Your task to perform on an android device: set default search engine in the chrome app Image 0: 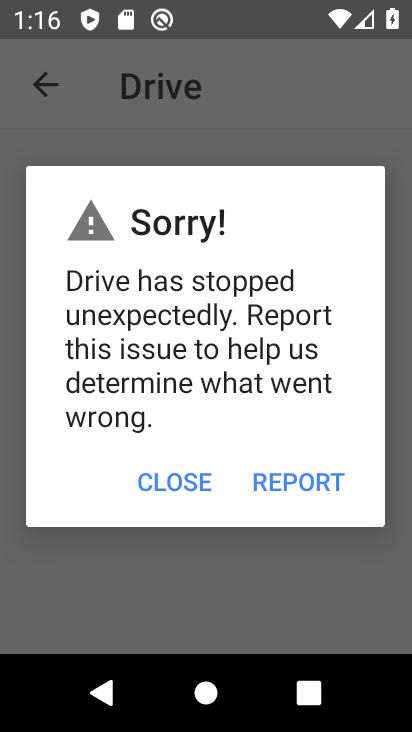
Step 0: press home button
Your task to perform on an android device: set default search engine in the chrome app Image 1: 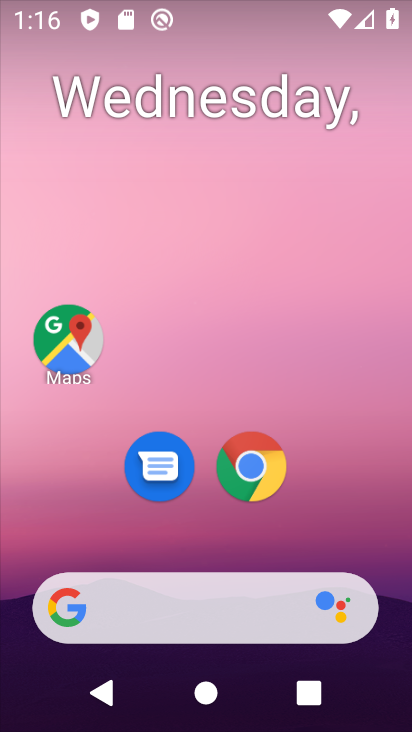
Step 1: click (266, 458)
Your task to perform on an android device: set default search engine in the chrome app Image 2: 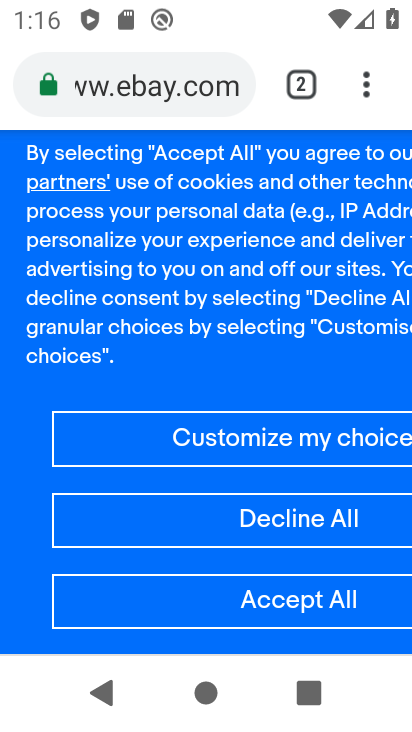
Step 2: click (372, 102)
Your task to perform on an android device: set default search engine in the chrome app Image 3: 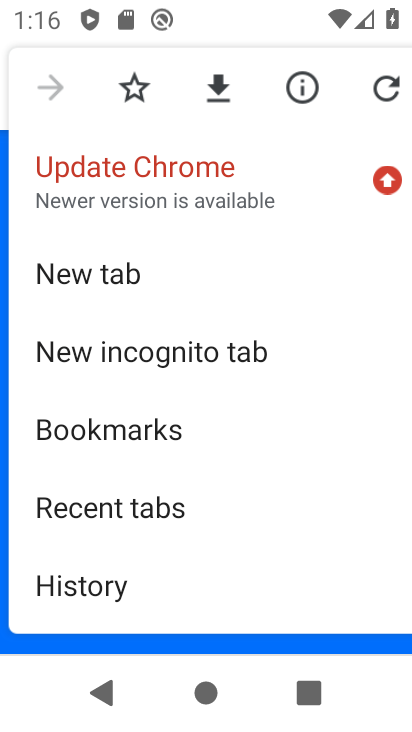
Step 3: drag from (140, 463) to (183, 105)
Your task to perform on an android device: set default search engine in the chrome app Image 4: 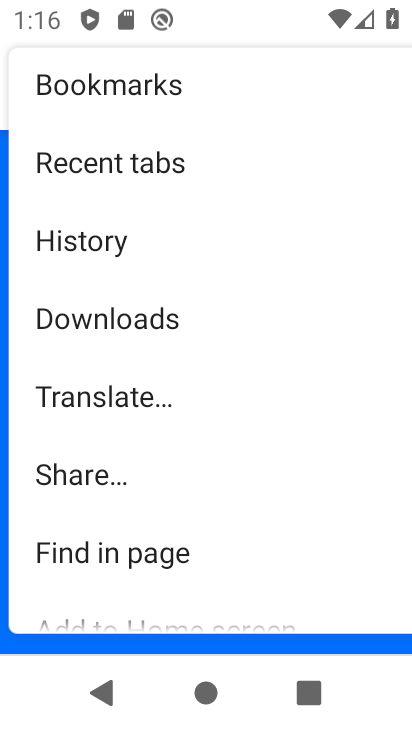
Step 4: drag from (78, 586) to (134, 159)
Your task to perform on an android device: set default search engine in the chrome app Image 5: 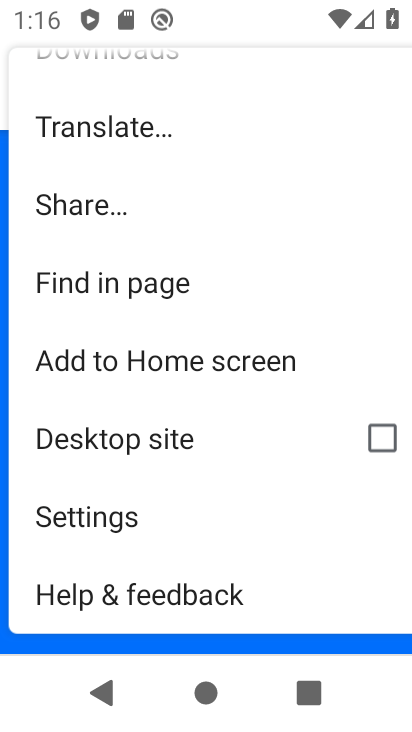
Step 5: click (104, 512)
Your task to perform on an android device: set default search engine in the chrome app Image 6: 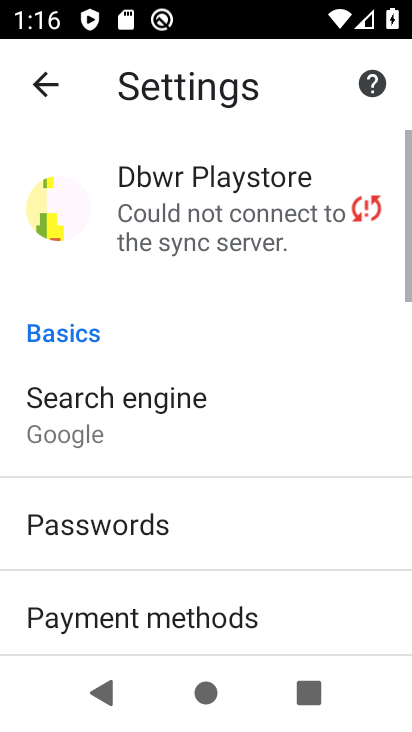
Step 6: click (105, 426)
Your task to perform on an android device: set default search engine in the chrome app Image 7: 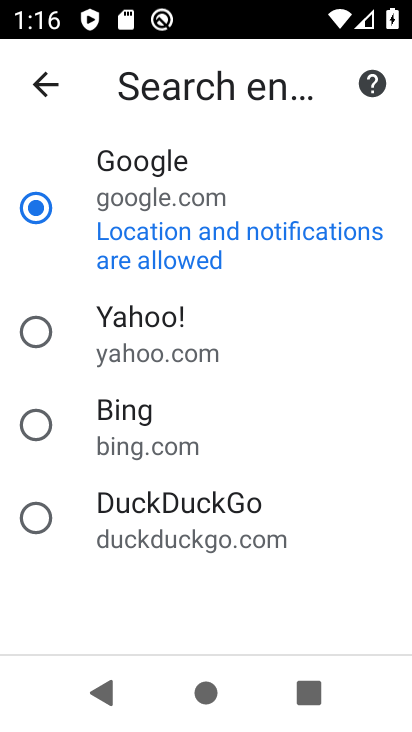
Step 7: click (151, 367)
Your task to perform on an android device: set default search engine in the chrome app Image 8: 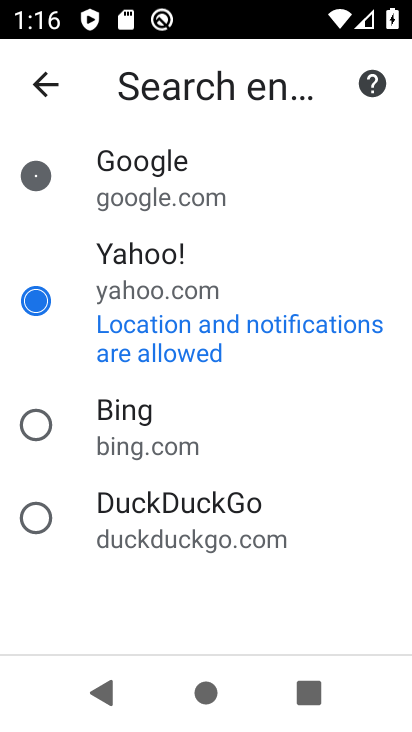
Step 8: task complete